Your task to perform on an android device: turn notification dots on Image 0: 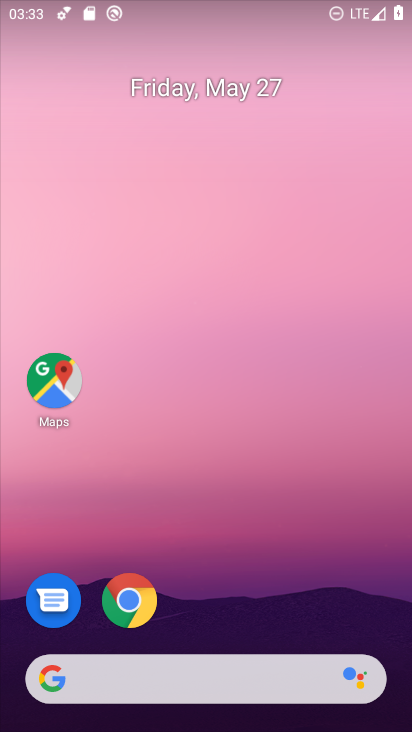
Step 0: drag from (224, 725) to (218, 71)
Your task to perform on an android device: turn notification dots on Image 1: 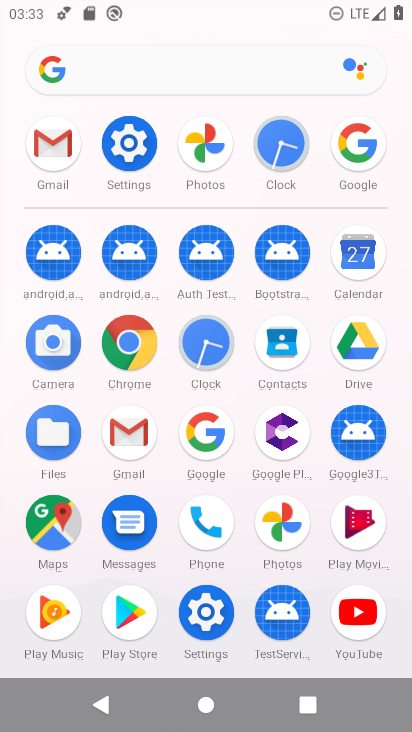
Step 1: click (131, 135)
Your task to perform on an android device: turn notification dots on Image 2: 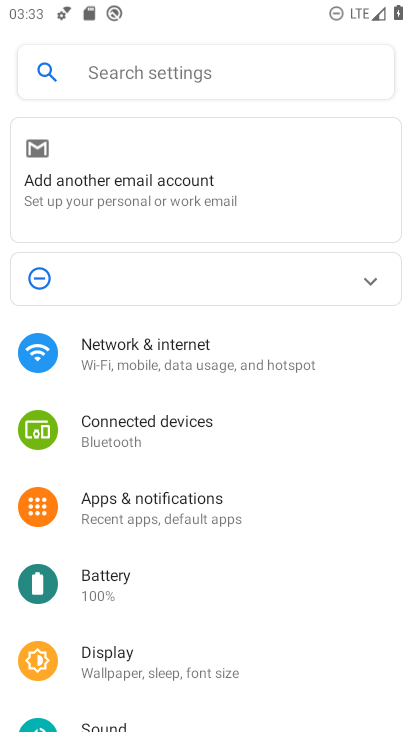
Step 2: click (136, 497)
Your task to perform on an android device: turn notification dots on Image 3: 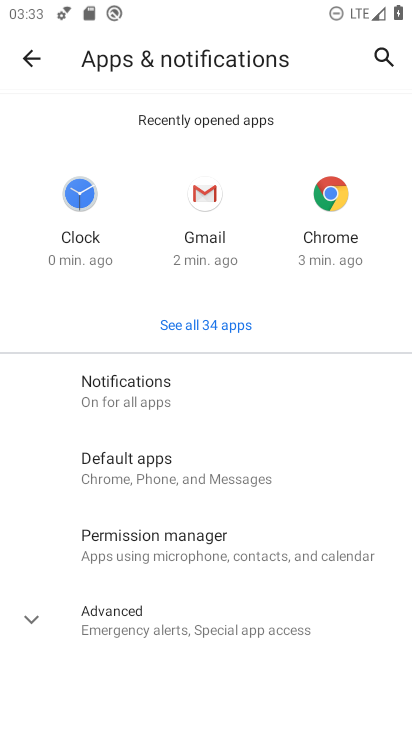
Step 3: click (138, 394)
Your task to perform on an android device: turn notification dots on Image 4: 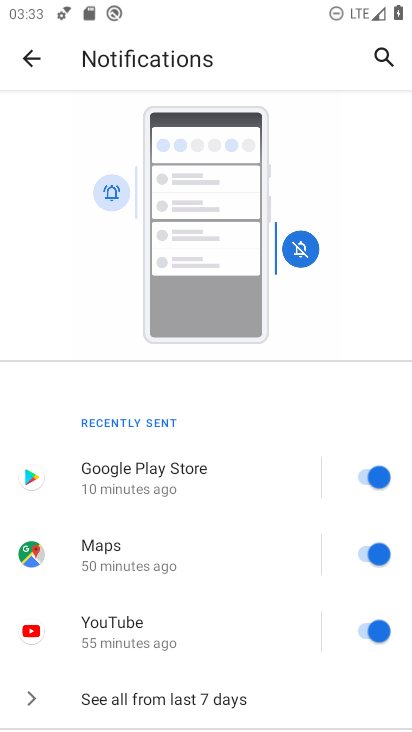
Step 4: drag from (165, 684) to (174, 347)
Your task to perform on an android device: turn notification dots on Image 5: 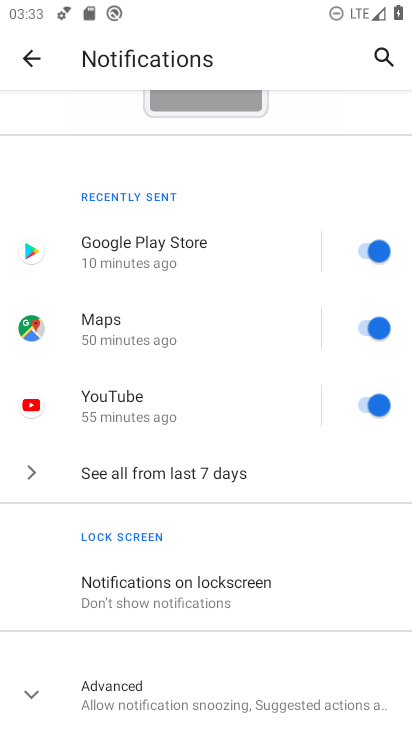
Step 5: click (159, 689)
Your task to perform on an android device: turn notification dots on Image 6: 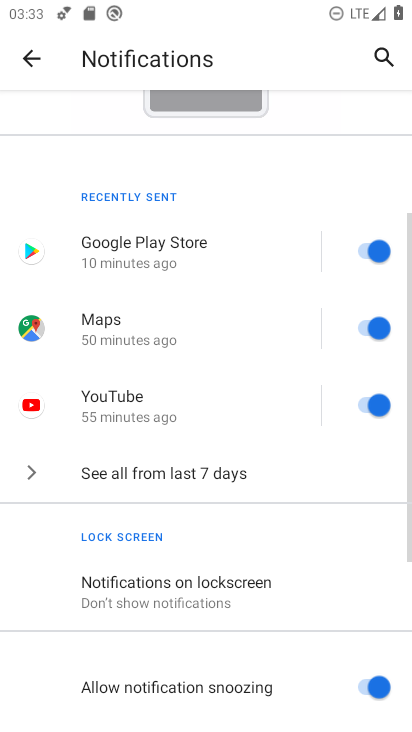
Step 6: drag from (167, 702) to (184, 430)
Your task to perform on an android device: turn notification dots on Image 7: 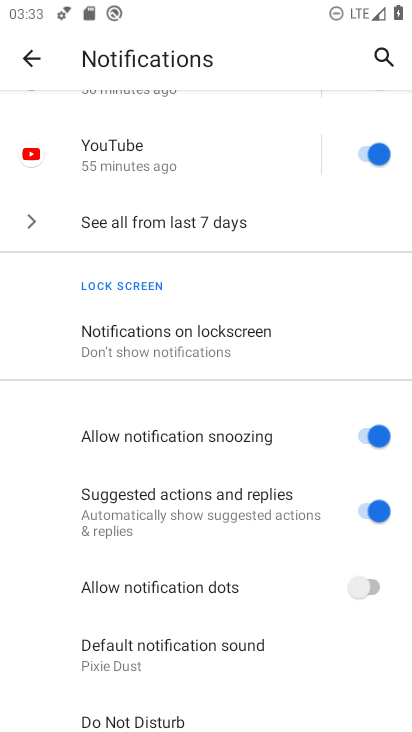
Step 7: click (382, 587)
Your task to perform on an android device: turn notification dots on Image 8: 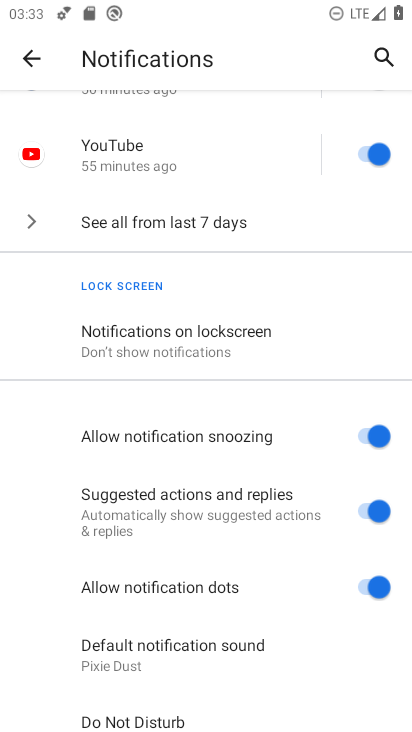
Step 8: task complete